Your task to perform on an android device: What's the latest tech news? Image 0: 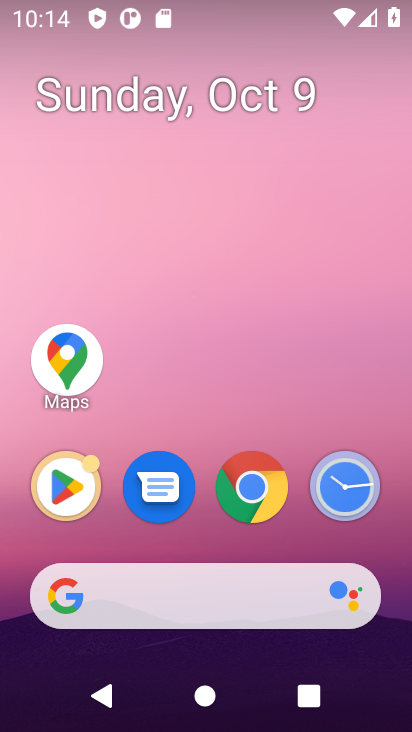
Step 0: drag from (203, 563) to (155, 54)
Your task to perform on an android device: What's the latest tech news? Image 1: 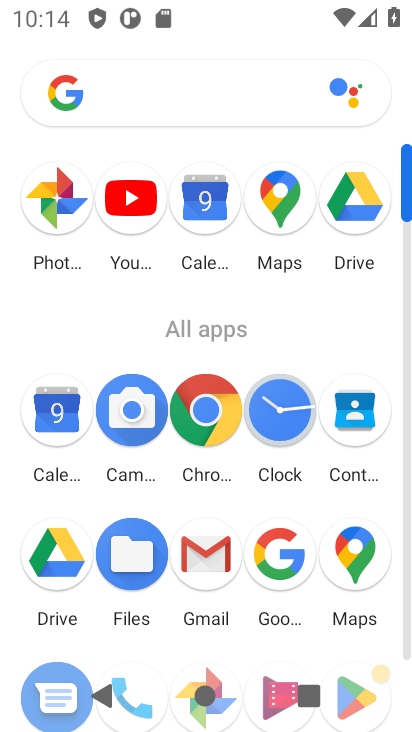
Step 1: click (206, 411)
Your task to perform on an android device: What's the latest tech news? Image 2: 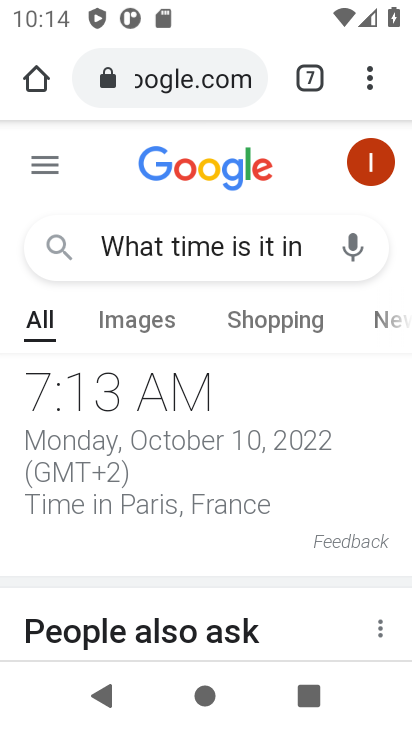
Step 2: click (205, 249)
Your task to perform on an android device: What's the latest tech news? Image 3: 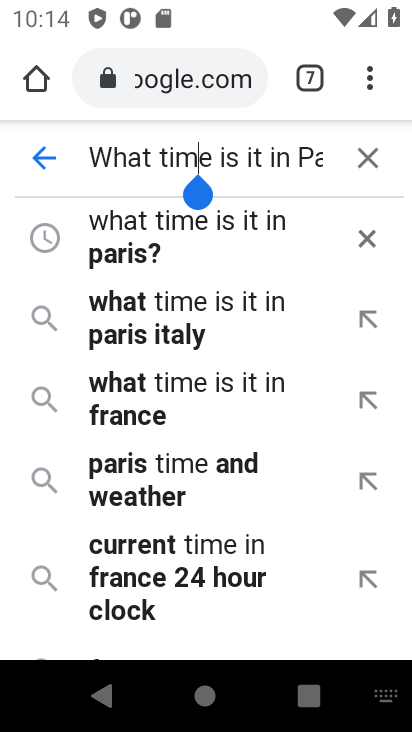
Step 3: click (361, 153)
Your task to perform on an android device: What's the latest tech news? Image 4: 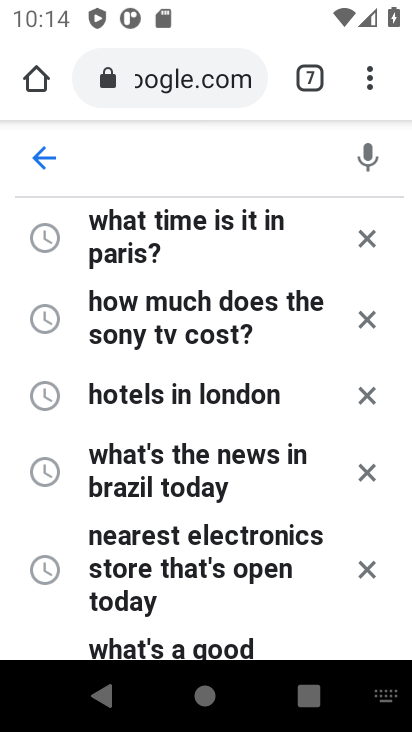
Step 4: type "What's the latest tech news?"
Your task to perform on an android device: What's the latest tech news? Image 5: 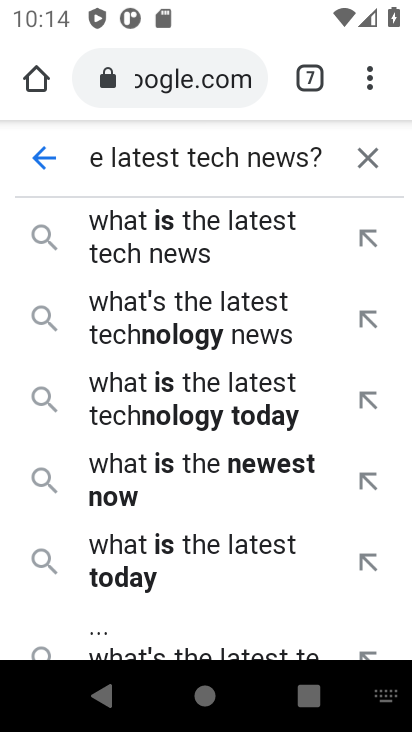
Step 5: click (232, 220)
Your task to perform on an android device: What's the latest tech news? Image 6: 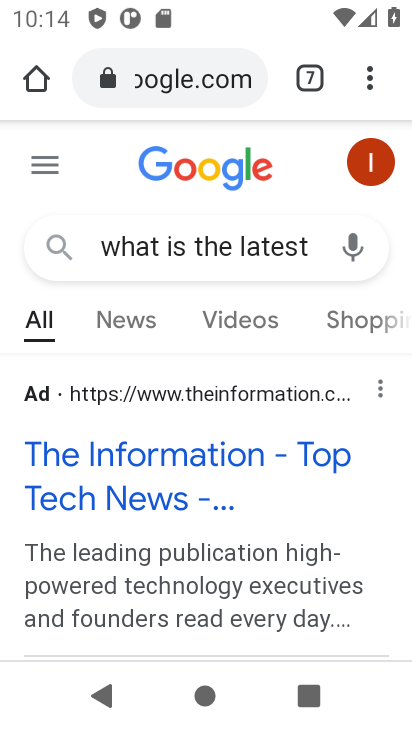
Step 6: click (140, 319)
Your task to perform on an android device: What's the latest tech news? Image 7: 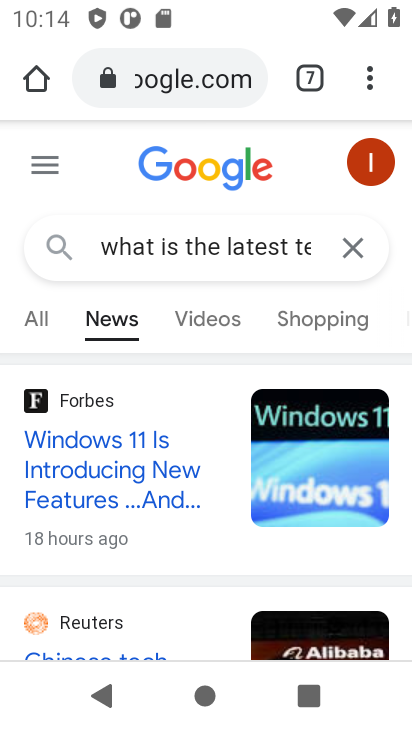
Step 7: task complete